Your task to perform on an android device: turn notification dots off Image 0: 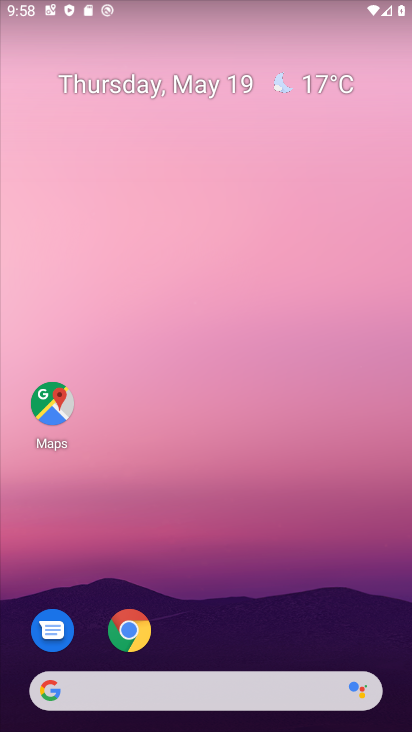
Step 0: drag from (258, 518) to (150, 146)
Your task to perform on an android device: turn notification dots off Image 1: 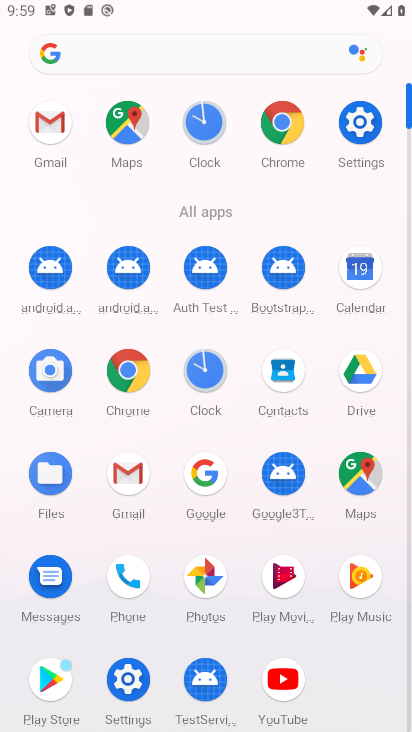
Step 1: click (356, 116)
Your task to perform on an android device: turn notification dots off Image 2: 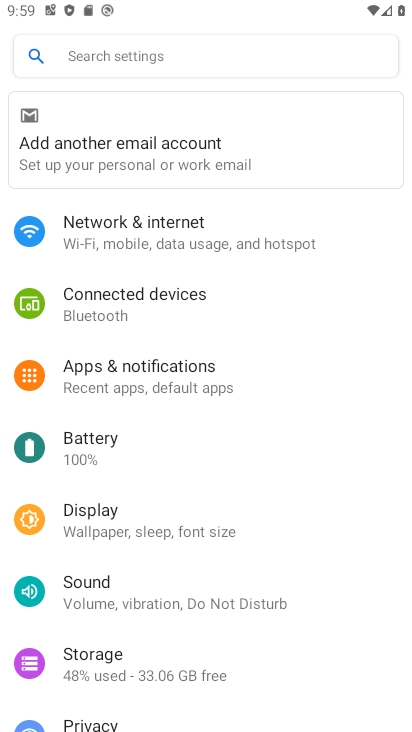
Step 2: drag from (198, 452) to (191, 297)
Your task to perform on an android device: turn notification dots off Image 3: 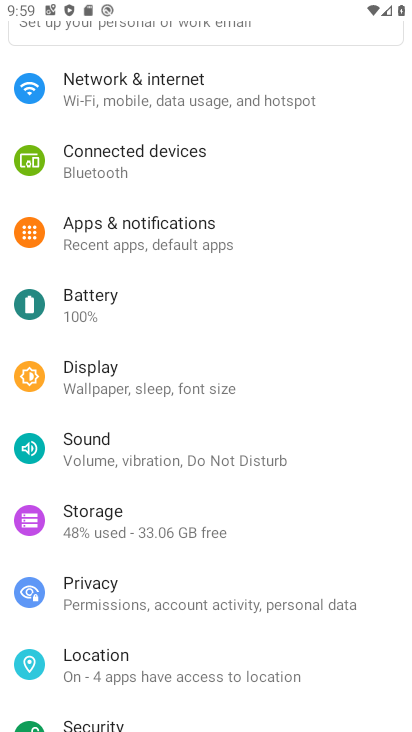
Step 3: click (149, 225)
Your task to perform on an android device: turn notification dots off Image 4: 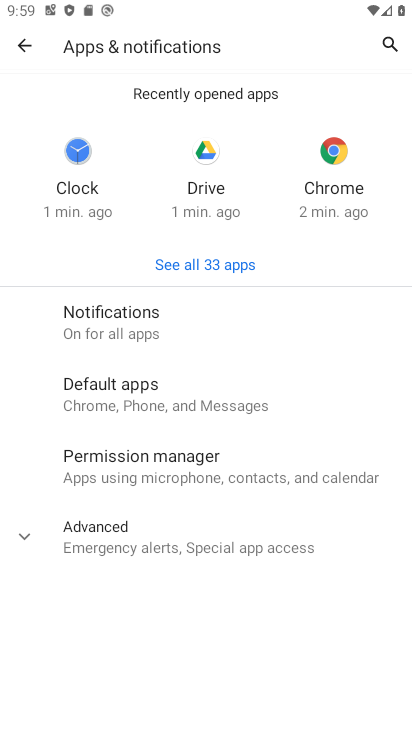
Step 4: click (119, 311)
Your task to perform on an android device: turn notification dots off Image 5: 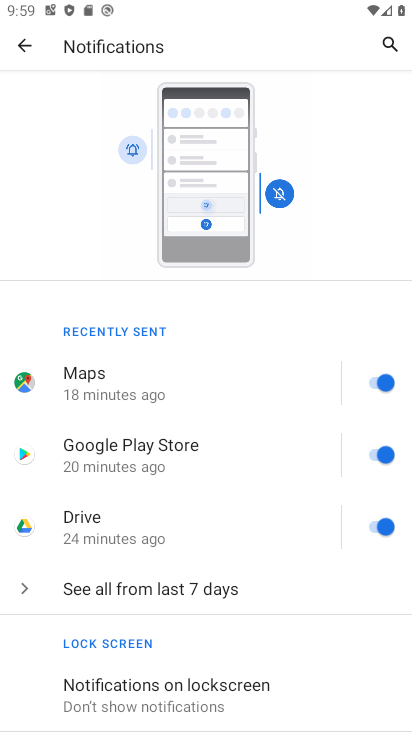
Step 5: drag from (299, 622) to (262, 352)
Your task to perform on an android device: turn notification dots off Image 6: 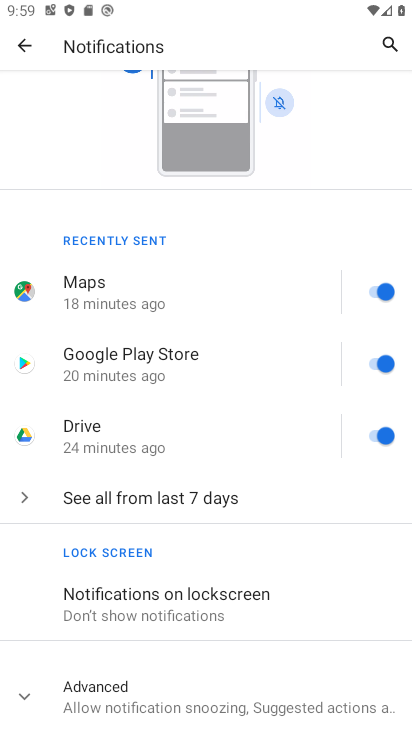
Step 6: click (176, 588)
Your task to perform on an android device: turn notification dots off Image 7: 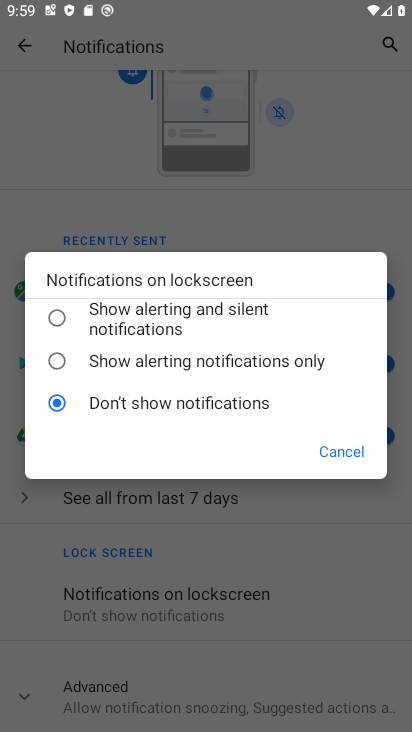
Step 7: click (346, 451)
Your task to perform on an android device: turn notification dots off Image 8: 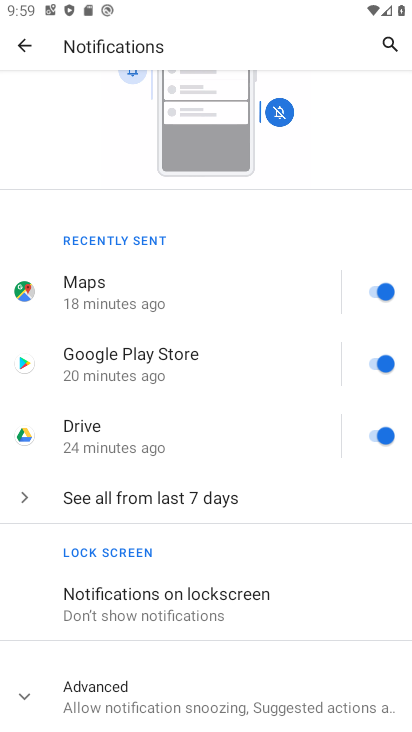
Step 8: drag from (257, 622) to (226, 414)
Your task to perform on an android device: turn notification dots off Image 9: 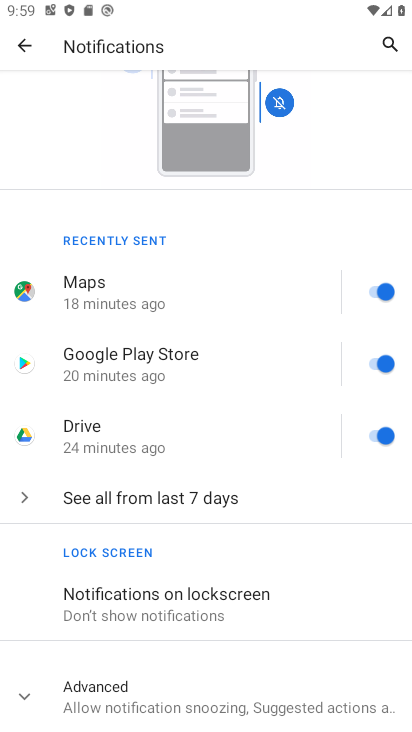
Step 9: click (24, 697)
Your task to perform on an android device: turn notification dots off Image 10: 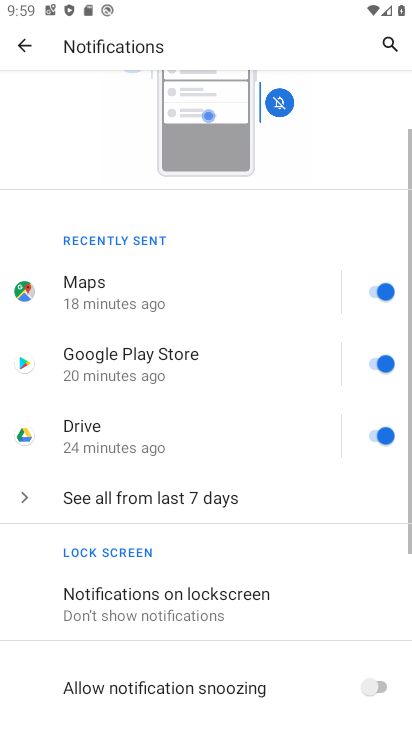
Step 10: drag from (157, 651) to (104, 310)
Your task to perform on an android device: turn notification dots off Image 11: 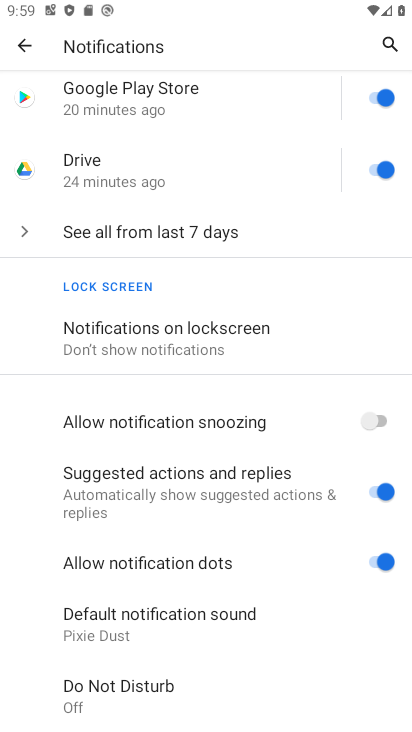
Step 11: click (387, 556)
Your task to perform on an android device: turn notification dots off Image 12: 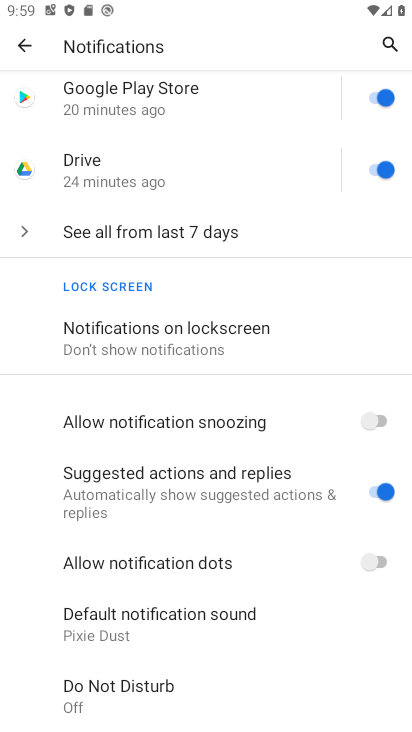
Step 12: task complete